Your task to perform on an android device: change the clock display to analog Image 0: 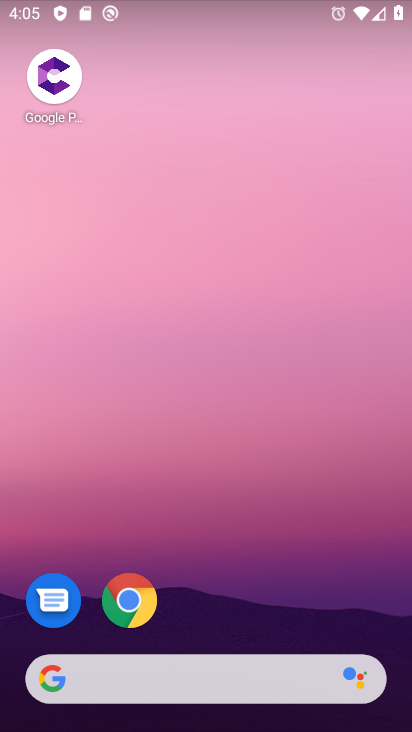
Step 0: drag from (203, 618) to (359, 45)
Your task to perform on an android device: change the clock display to analog Image 1: 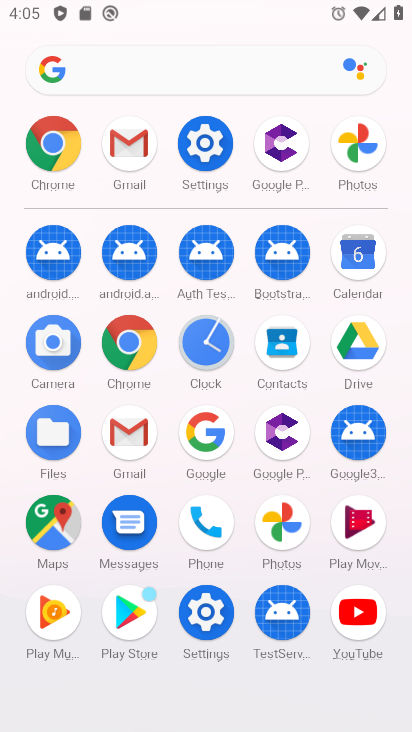
Step 1: click (215, 619)
Your task to perform on an android device: change the clock display to analog Image 2: 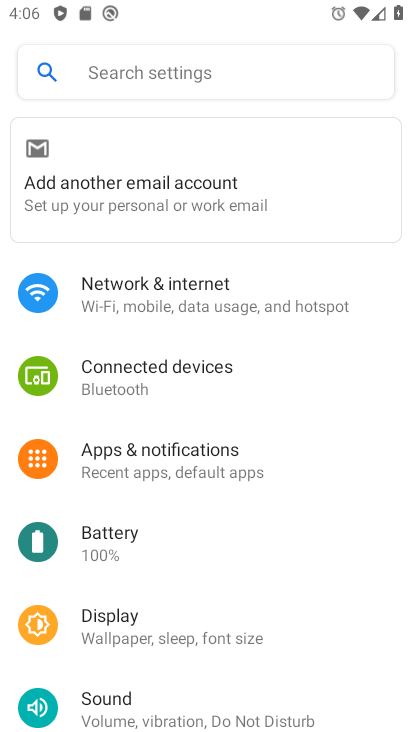
Step 2: drag from (207, 645) to (255, 310)
Your task to perform on an android device: change the clock display to analog Image 3: 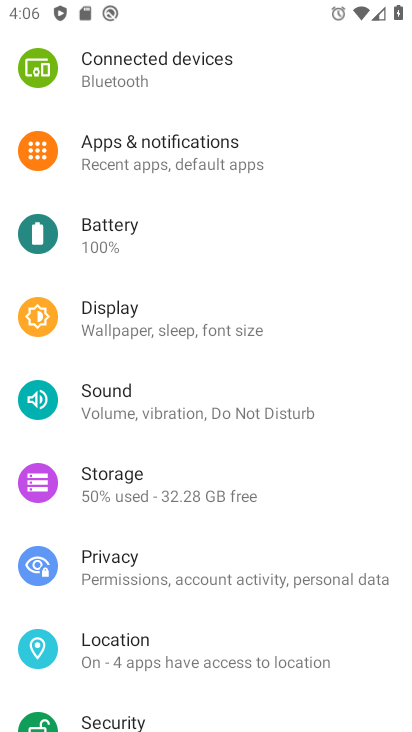
Step 3: drag from (144, 637) to (202, 207)
Your task to perform on an android device: change the clock display to analog Image 4: 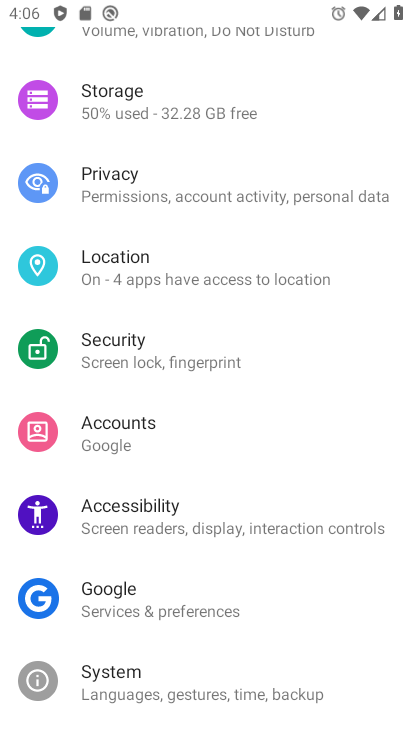
Step 4: drag from (144, 611) to (244, 258)
Your task to perform on an android device: change the clock display to analog Image 5: 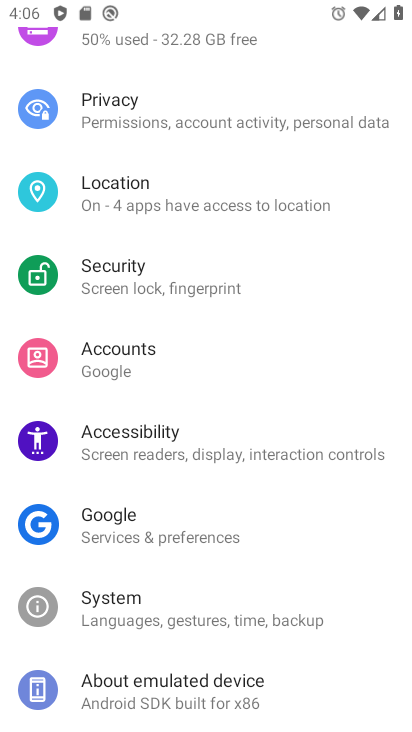
Step 5: click (183, 620)
Your task to perform on an android device: change the clock display to analog Image 6: 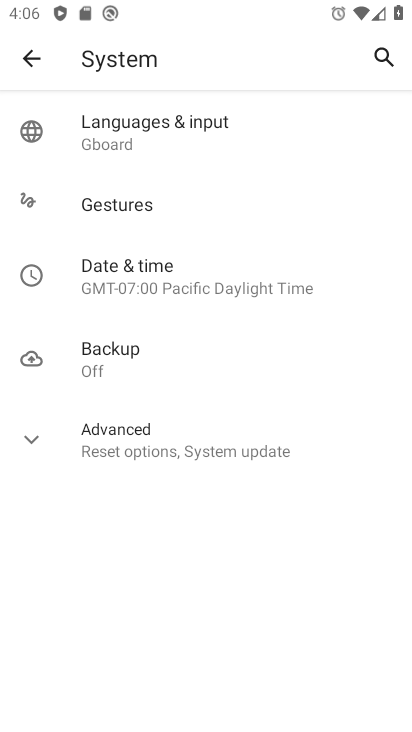
Step 6: click (159, 292)
Your task to perform on an android device: change the clock display to analog Image 7: 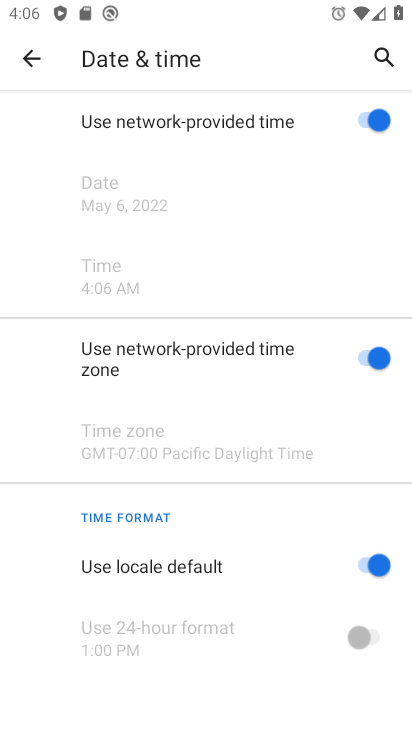
Step 7: press home button
Your task to perform on an android device: change the clock display to analog Image 8: 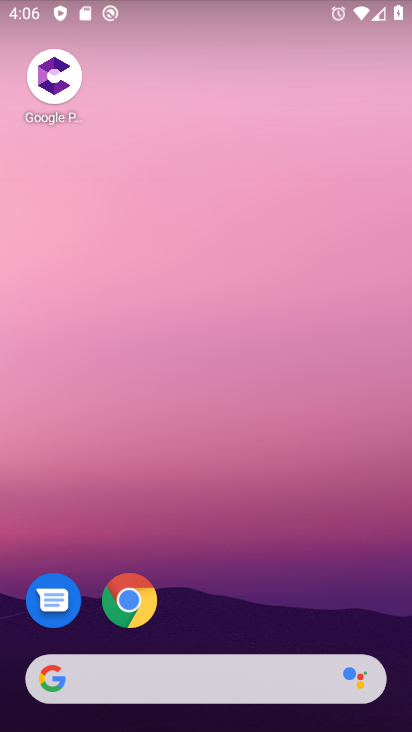
Step 8: drag from (220, 455) to (236, 1)
Your task to perform on an android device: change the clock display to analog Image 9: 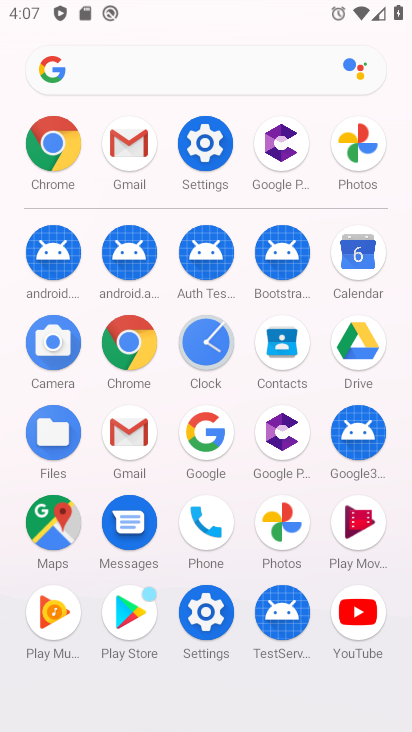
Step 9: click (212, 355)
Your task to perform on an android device: change the clock display to analog Image 10: 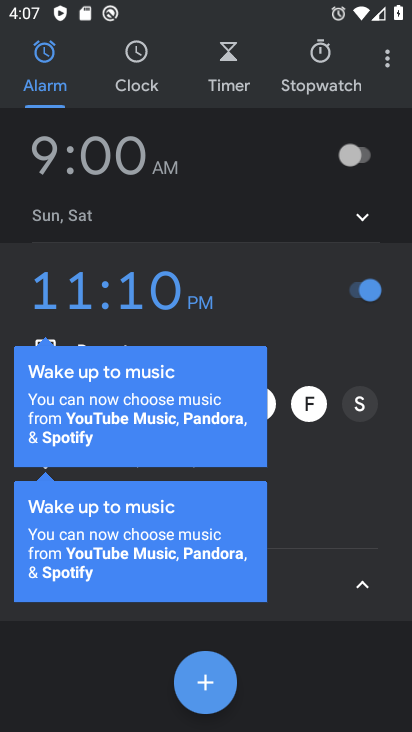
Step 10: click (379, 53)
Your task to perform on an android device: change the clock display to analog Image 11: 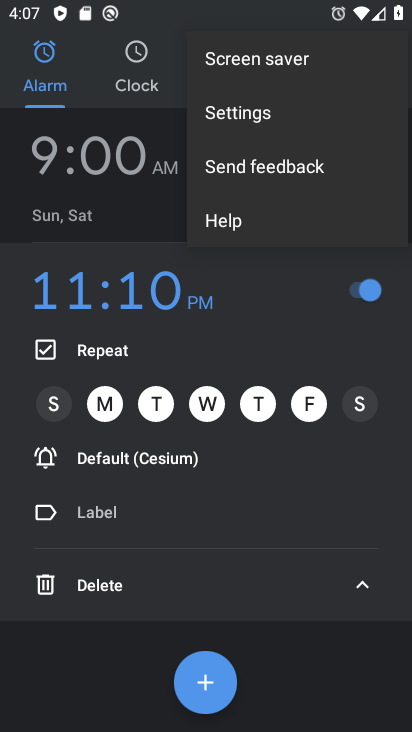
Step 11: click (240, 114)
Your task to perform on an android device: change the clock display to analog Image 12: 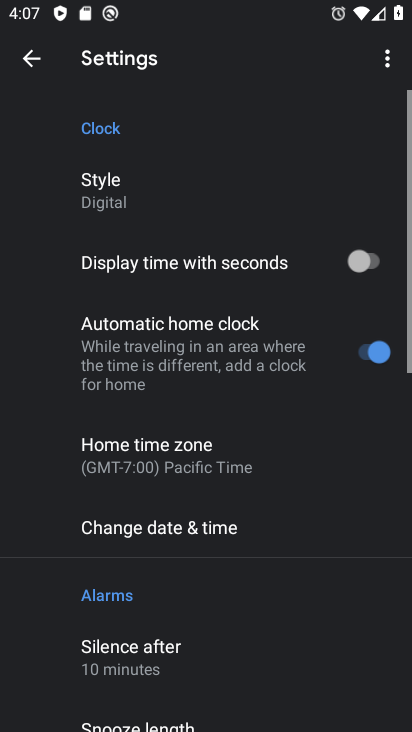
Step 12: click (114, 201)
Your task to perform on an android device: change the clock display to analog Image 13: 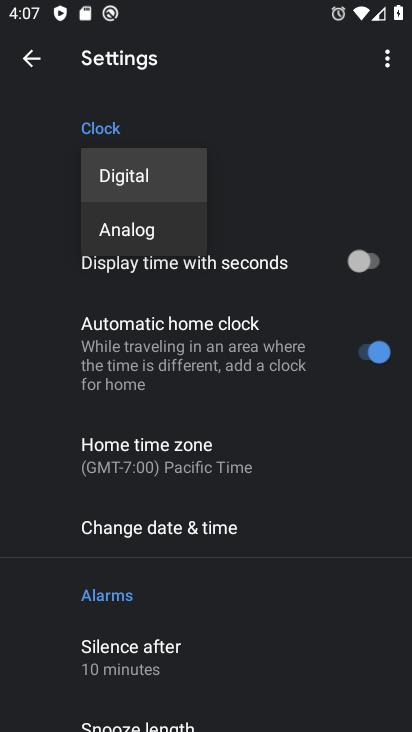
Step 13: click (144, 232)
Your task to perform on an android device: change the clock display to analog Image 14: 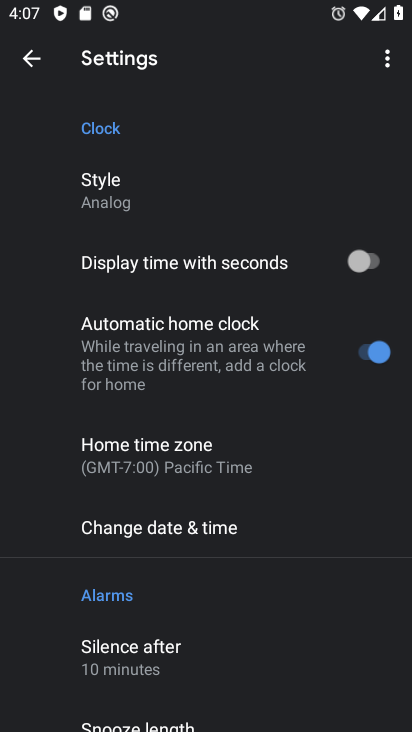
Step 14: task complete